Your task to perform on an android device: turn off airplane mode Image 0: 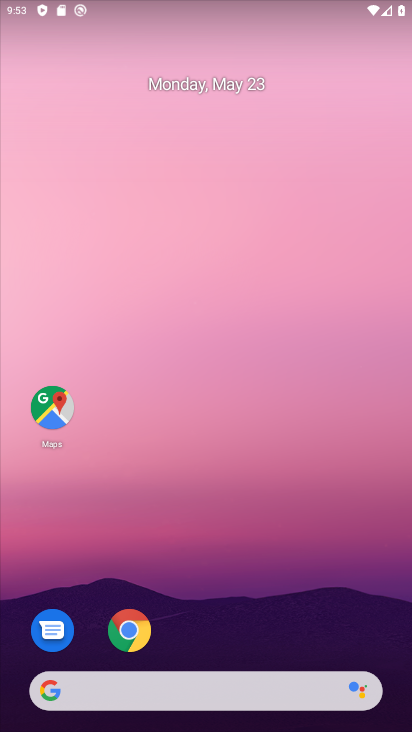
Step 0: drag from (268, 643) to (239, 4)
Your task to perform on an android device: turn off airplane mode Image 1: 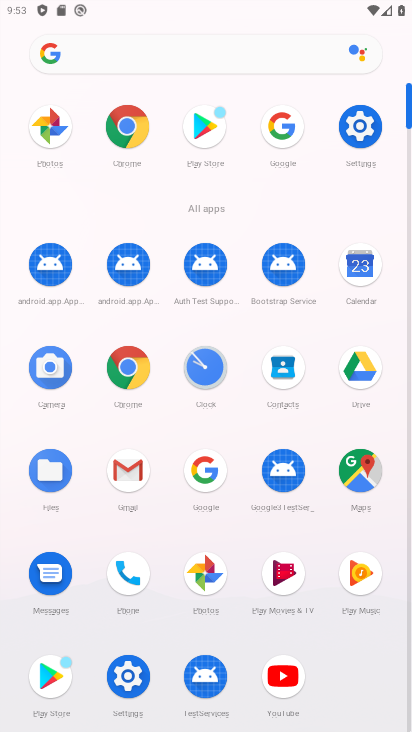
Step 1: click (364, 122)
Your task to perform on an android device: turn off airplane mode Image 2: 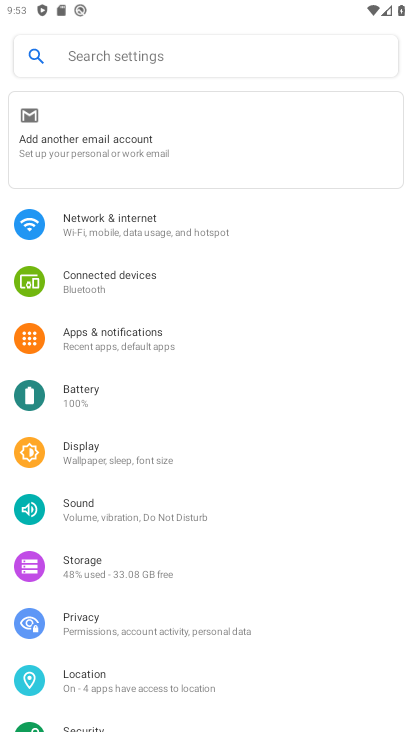
Step 2: click (109, 228)
Your task to perform on an android device: turn off airplane mode Image 3: 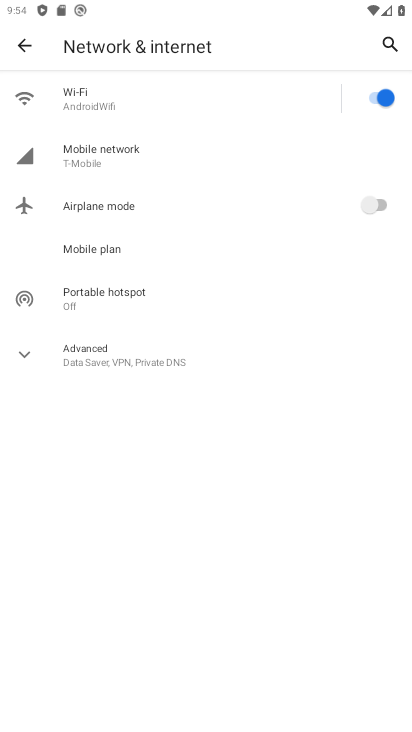
Step 3: task complete